Your task to perform on an android device: toggle show notifications on the lock screen Image 0: 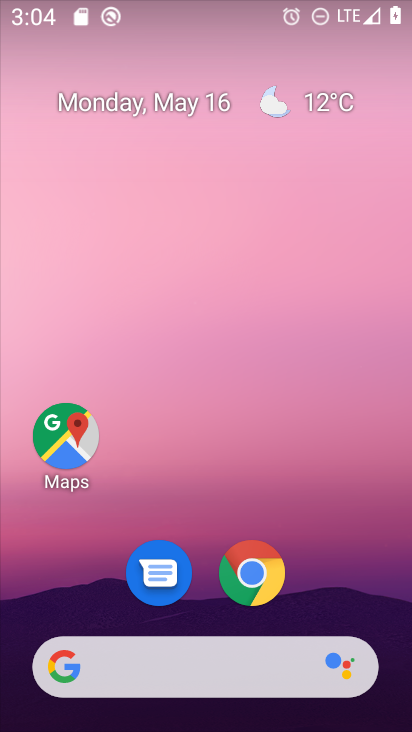
Step 0: drag from (165, 647) to (178, 162)
Your task to perform on an android device: toggle show notifications on the lock screen Image 1: 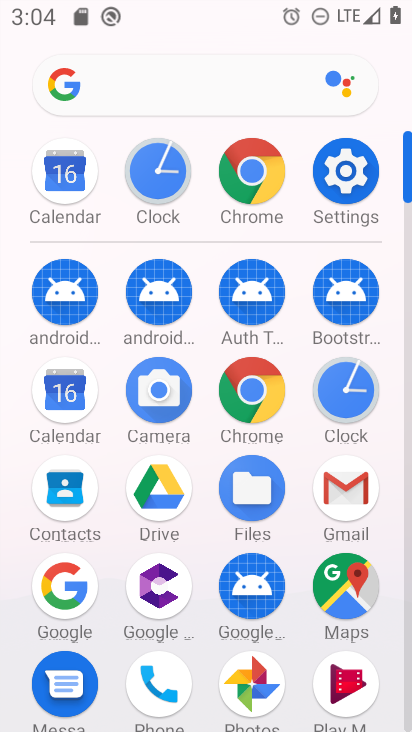
Step 1: click (356, 188)
Your task to perform on an android device: toggle show notifications on the lock screen Image 2: 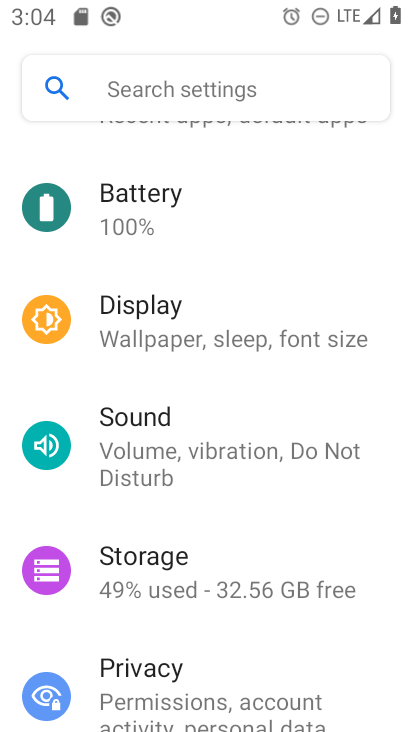
Step 2: drag from (133, 342) to (182, 721)
Your task to perform on an android device: toggle show notifications on the lock screen Image 3: 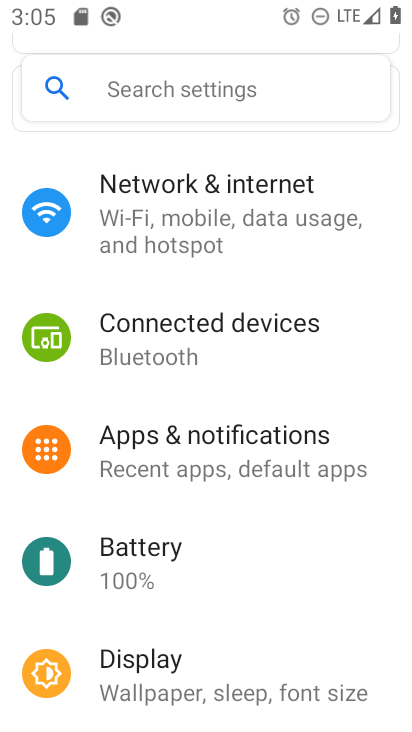
Step 3: click (149, 453)
Your task to perform on an android device: toggle show notifications on the lock screen Image 4: 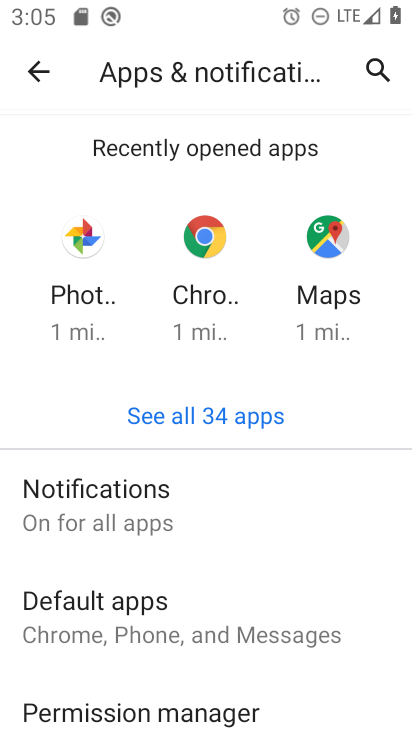
Step 4: click (160, 521)
Your task to perform on an android device: toggle show notifications on the lock screen Image 5: 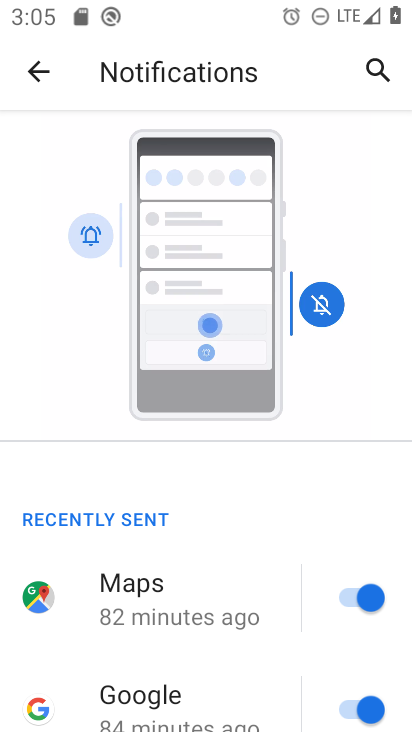
Step 5: drag from (221, 542) to (210, 33)
Your task to perform on an android device: toggle show notifications on the lock screen Image 6: 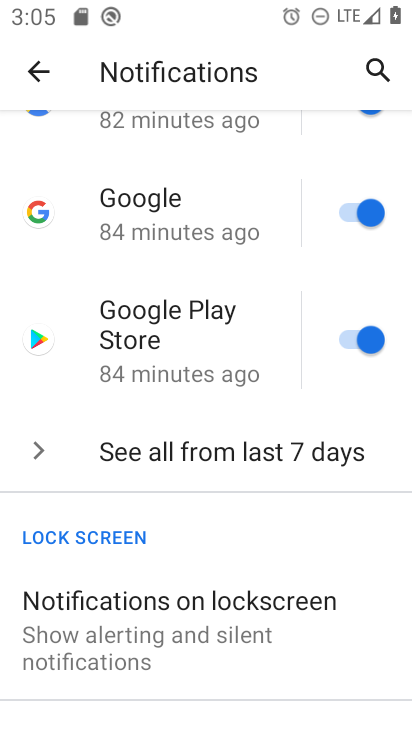
Step 6: drag from (156, 648) to (164, 59)
Your task to perform on an android device: toggle show notifications on the lock screen Image 7: 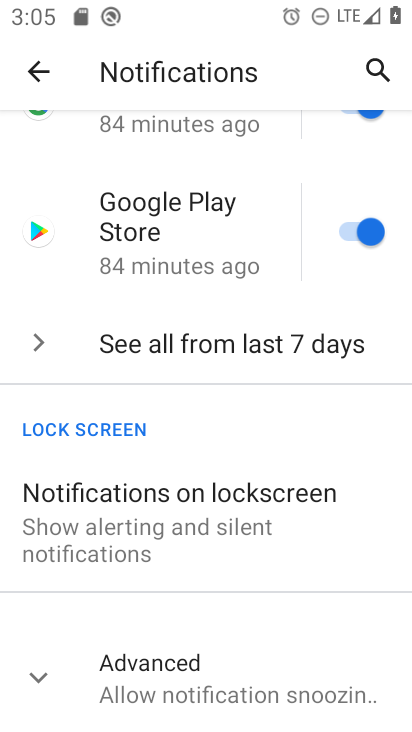
Step 7: click (175, 589)
Your task to perform on an android device: toggle show notifications on the lock screen Image 8: 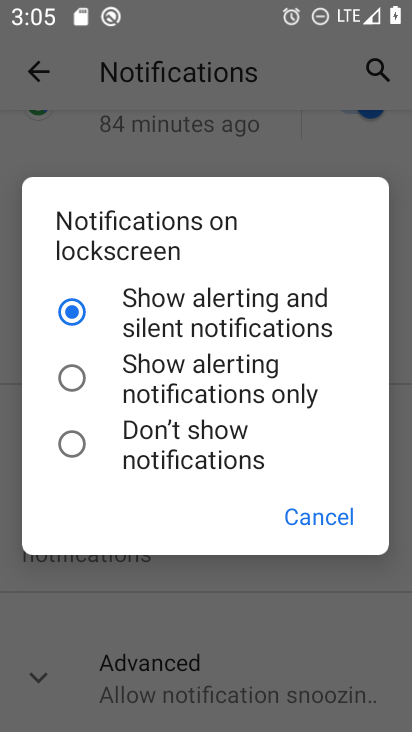
Step 8: click (167, 322)
Your task to perform on an android device: toggle show notifications on the lock screen Image 9: 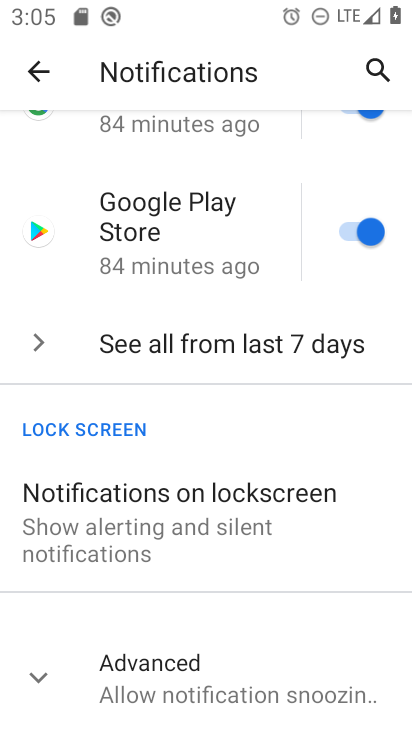
Step 9: task complete